Your task to perform on an android device: toggle priority inbox in the gmail app Image 0: 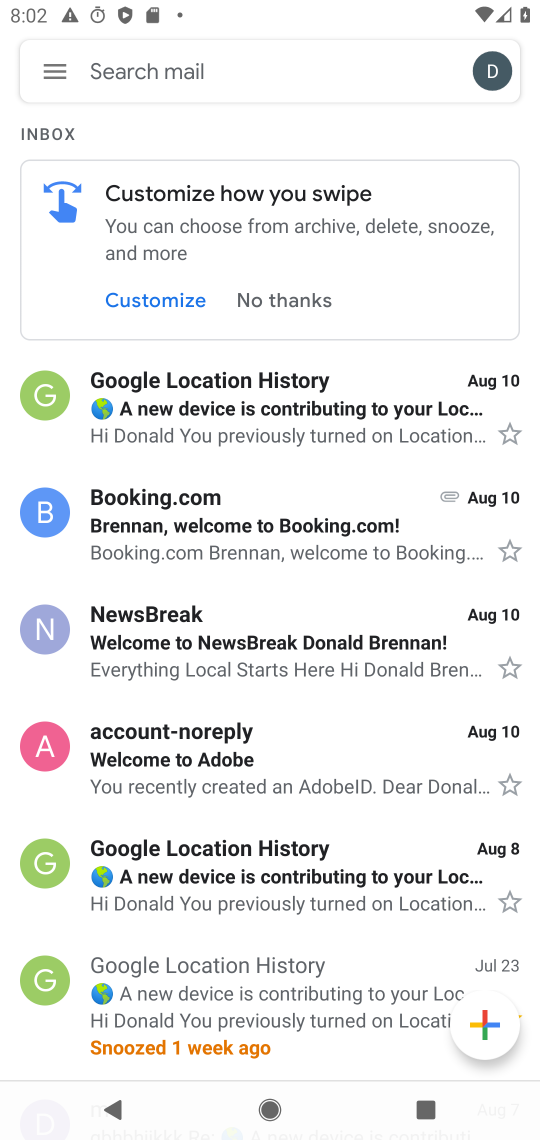
Step 0: click (53, 73)
Your task to perform on an android device: toggle priority inbox in the gmail app Image 1: 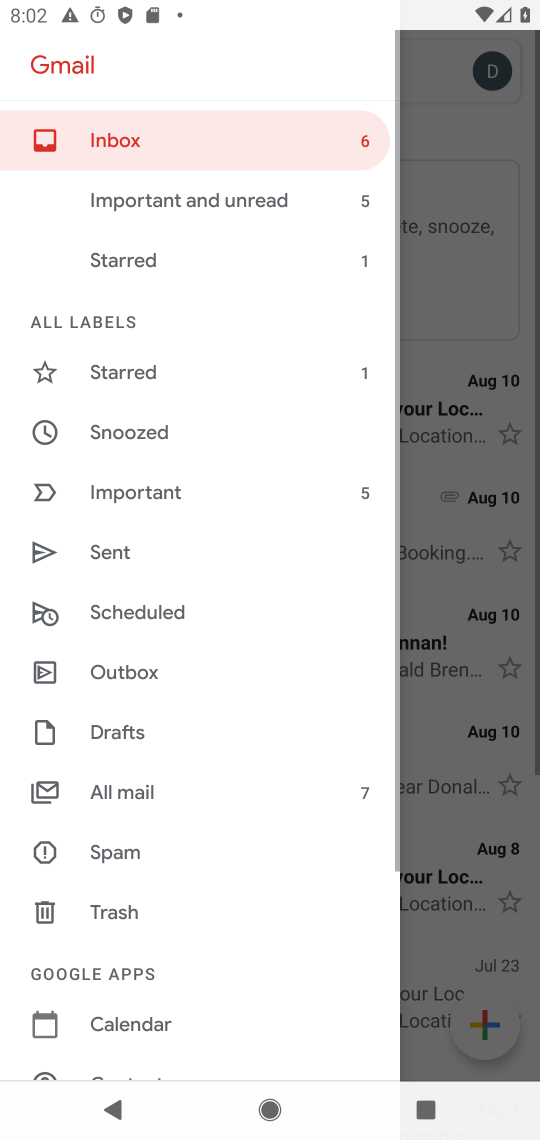
Step 1: drag from (164, 607) to (197, 345)
Your task to perform on an android device: toggle priority inbox in the gmail app Image 2: 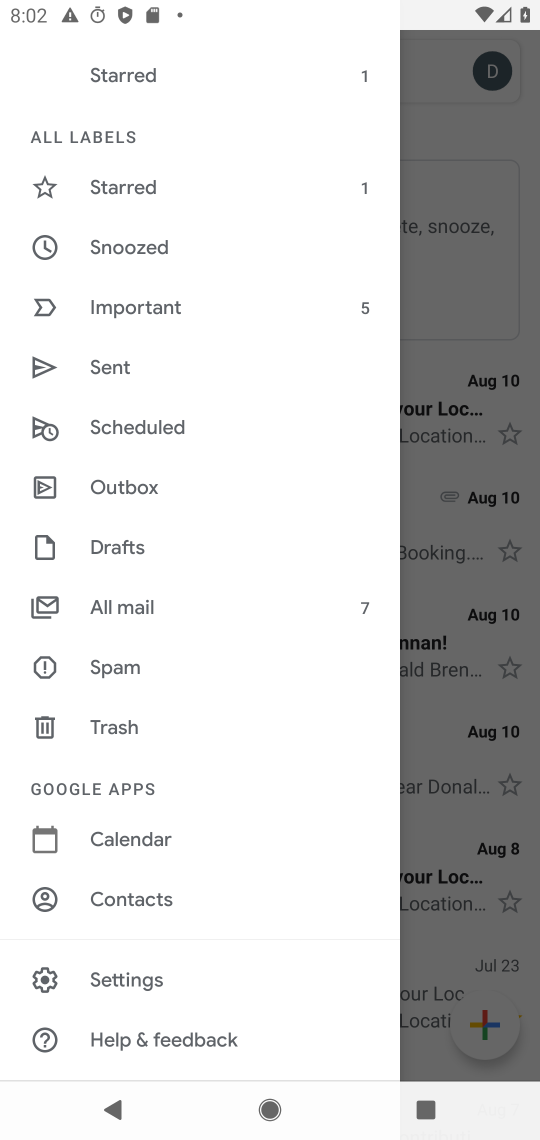
Step 2: click (122, 971)
Your task to perform on an android device: toggle priority inbox in the gmail app Image 3: 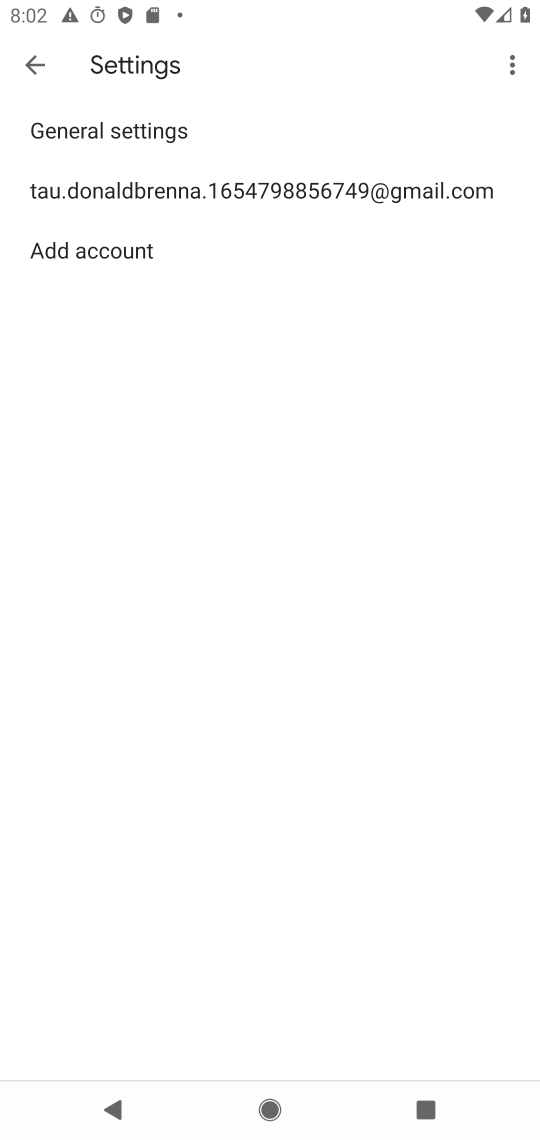
Step 3: click (264, 195)
Your task to perform on an android device: toggle priority inbox in the gmail app Image 4: 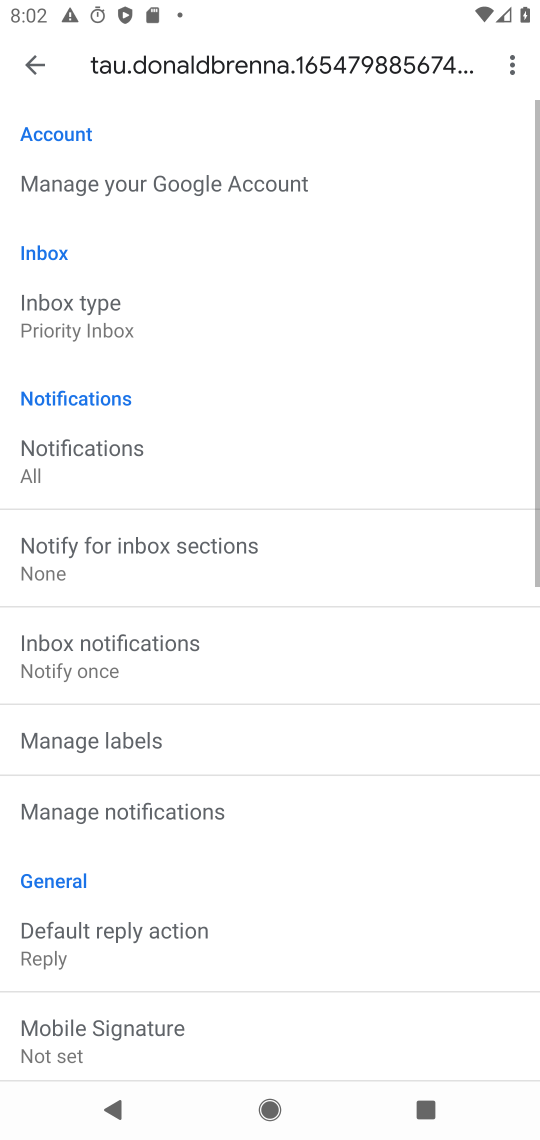
Step 4: click (74, 333)
Your task to perform on an android device: toggle priority inbox in the gmail app Image 5: 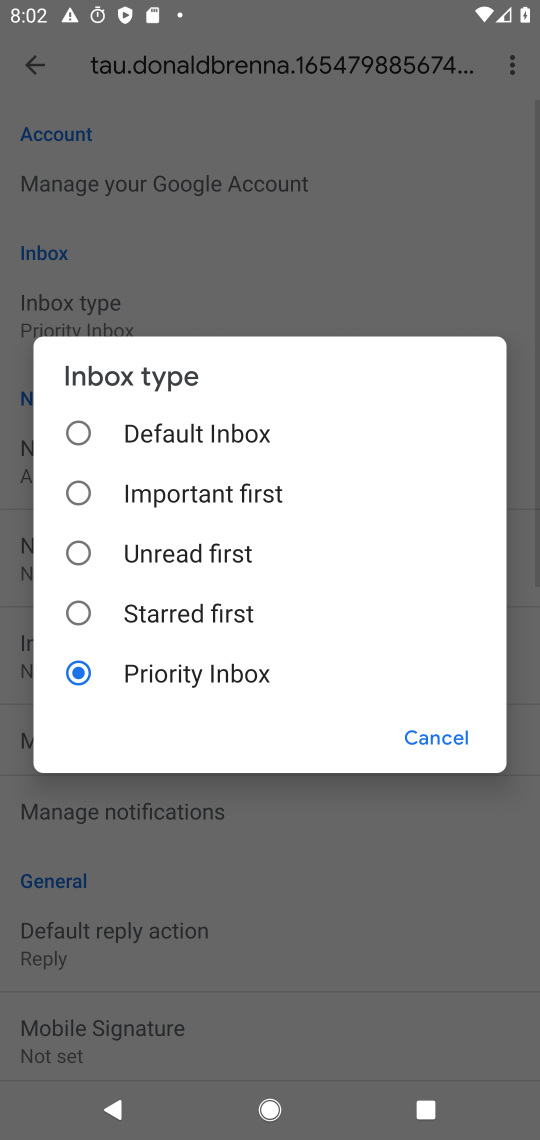
Step 5: click (176, 426)
Your task to perform on an android device: toggle priority inbox in the gmail app Image 6: 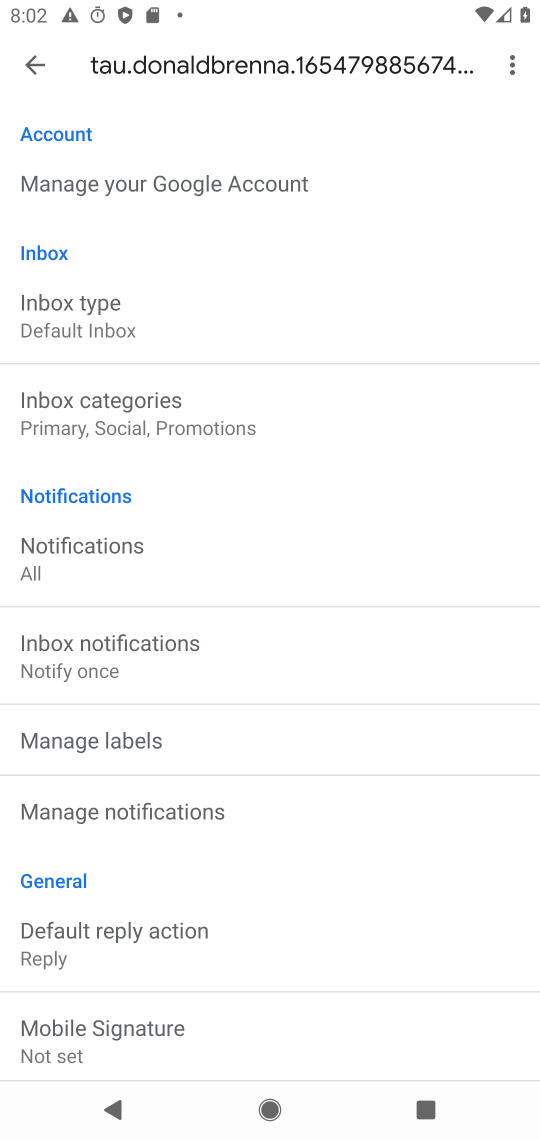
Step 6: task complete